Your task to perform on an android device: Add usb-c to usb-a to the cart on target.com Image 0: 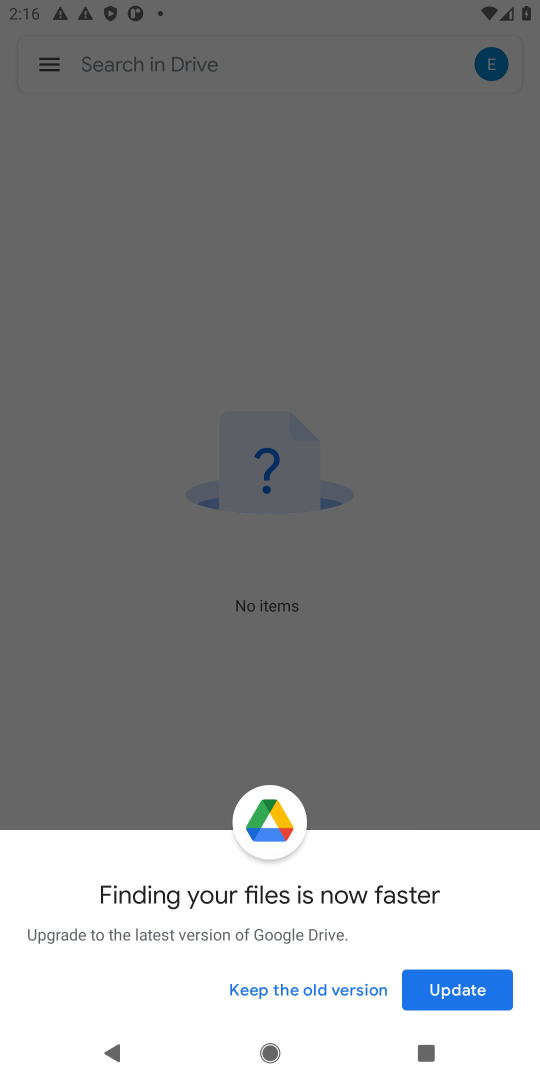
Step 0: press home button
Your task to perform on an android device: Add usb-c to usb-a to the cart on target.com Image 1: 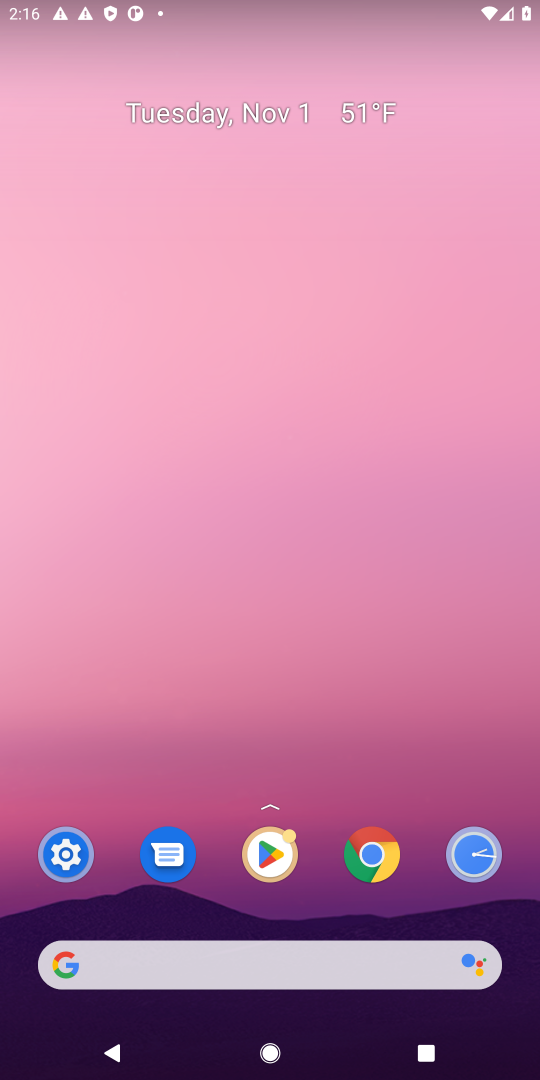
Step 1: click (269, 961)
Your task to perform on an android device: Add usb-c to usb-a to the cart on target.com Image 2: 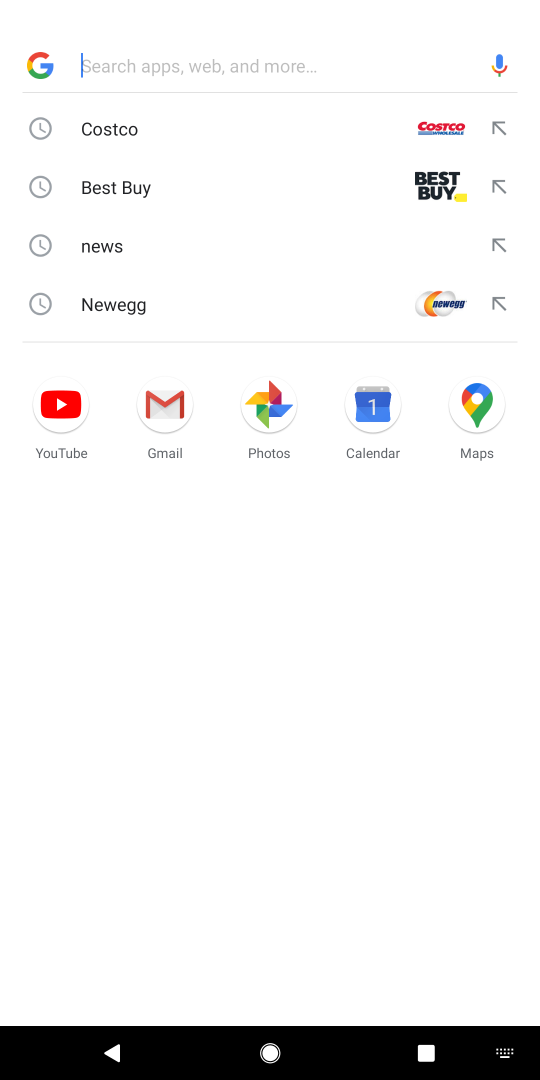
Step 2: type "target"
Your task to perform on an android device: Add usb-c to usb-a to the cart on target.com Image 3: 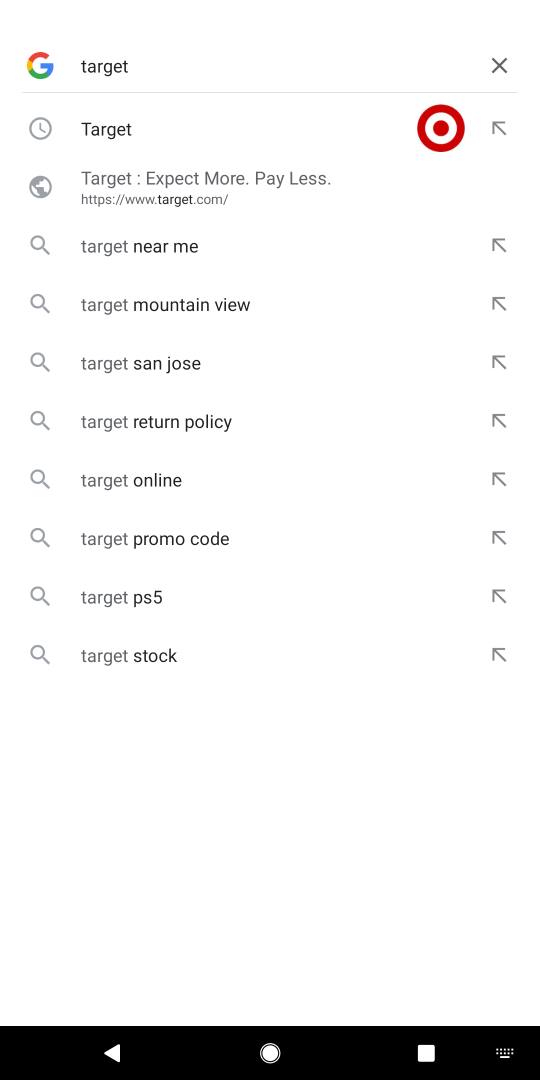
Step 3: click (103, 114)
Your task to perform on an android device: Add usb-c to usb-a to the cart on target.com Image 4: 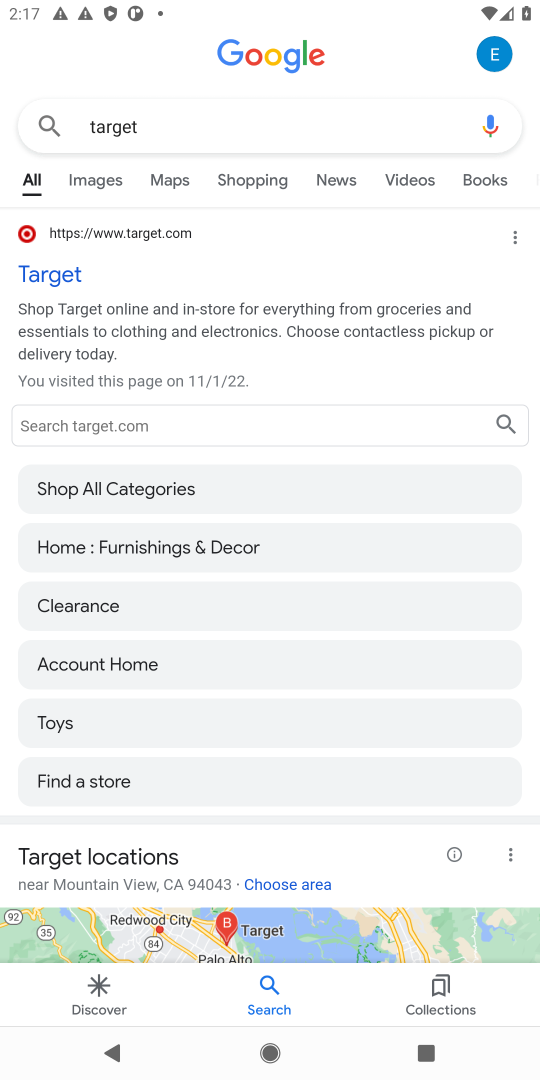
Step 4: click (60, 278)
Your task to perform on an android device: Add usb-c to usb-a to the cart on target.com Image 5: 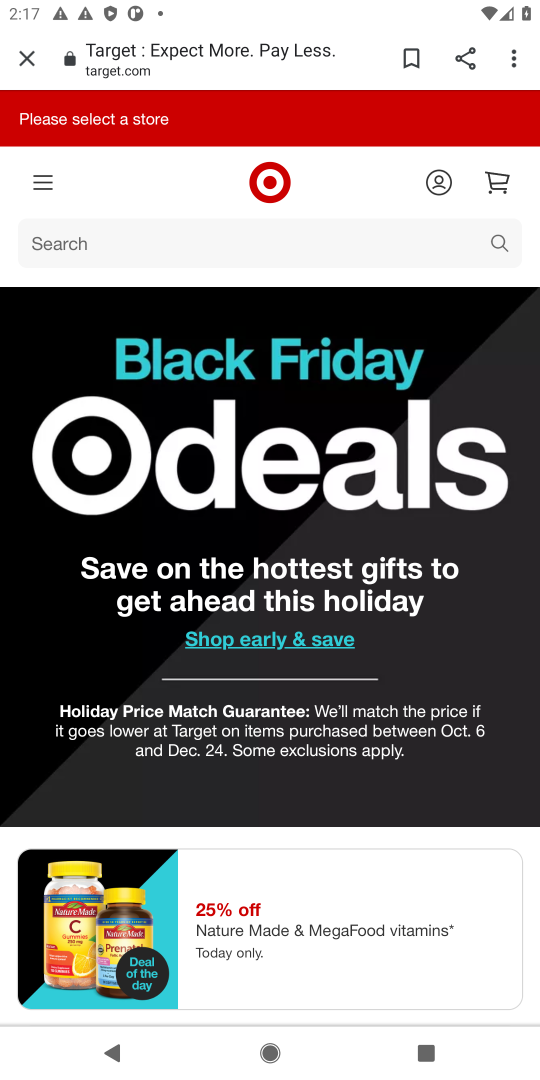
Step 5: click (136, 222)
Your task to perform on an android device: Add usb-c to usb-a to the cart on target.com Image 6: 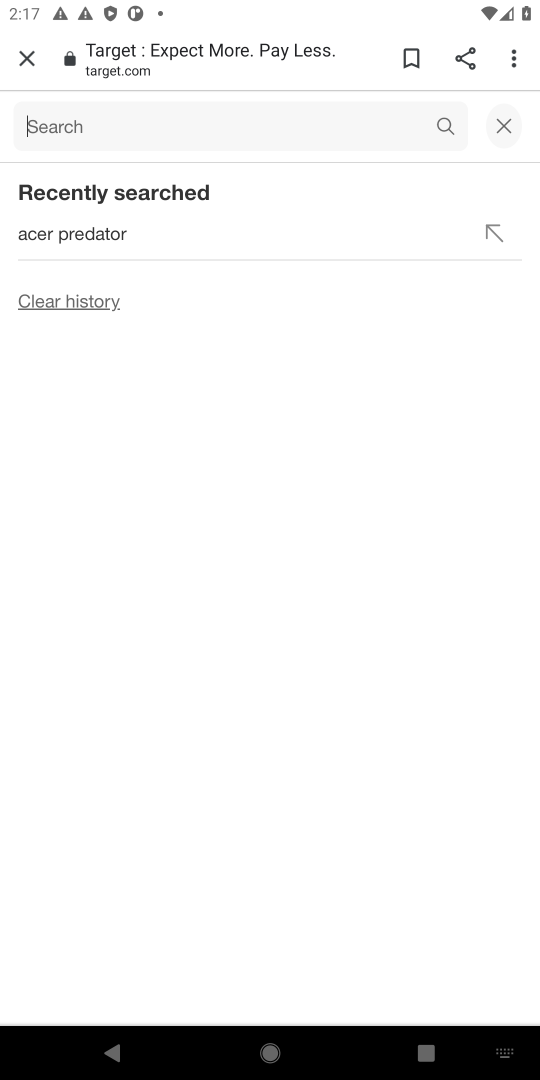
Step 6: type "usb-c to usb-a"
Your task to perform on an android device: Add usb-c to usb-a to the cart on target.com Image 7: 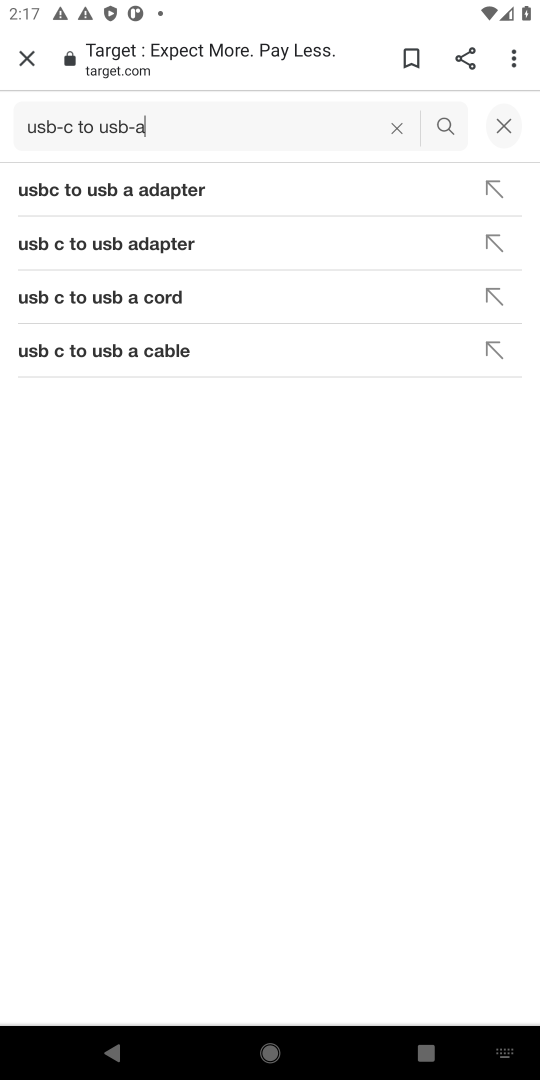
Step 7: click (441, 118)
Your task to perform on an android device: Add usb-c to usb-a to the cart on target.com Image 8: 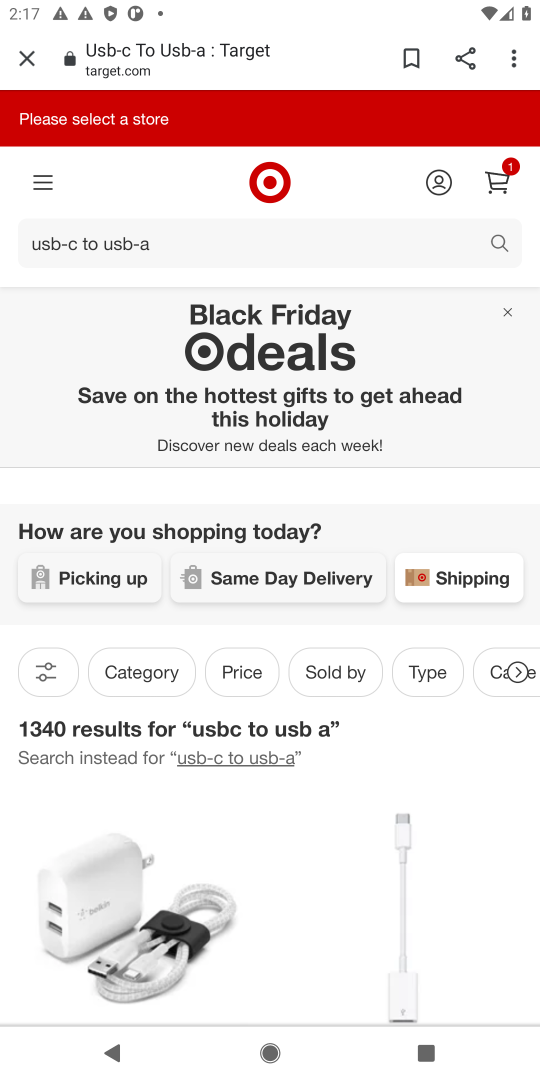
Step 8: drag from (375, 759) to (335, 461)
Your task to perform on an android device: Add usb-c to usb-a to the cart on target.com Image 9: 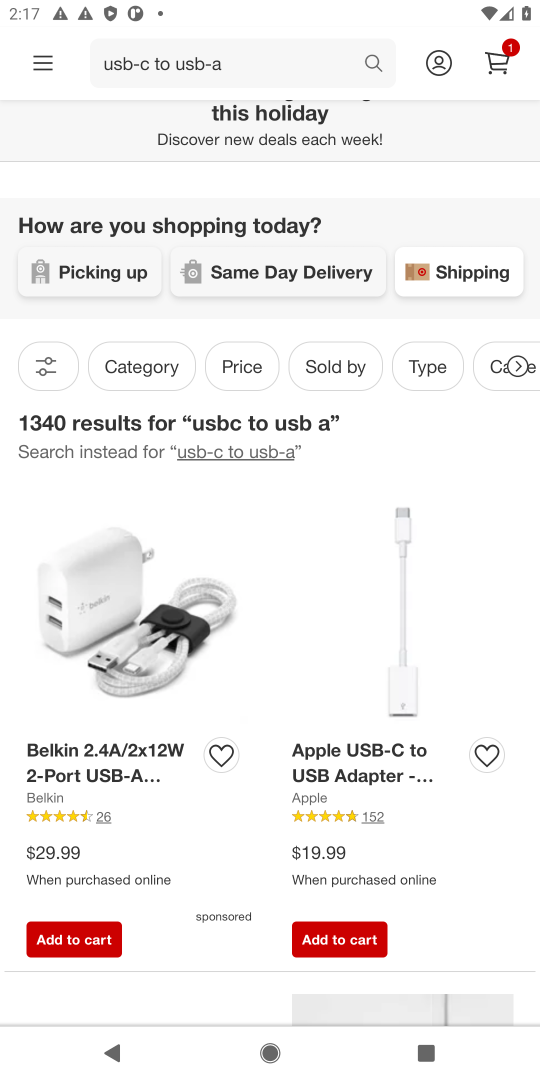
Step 9: click (80, 939)
Your task to perform on an android device: Add usb-c to usb-a to the cart on target.com Image 10: 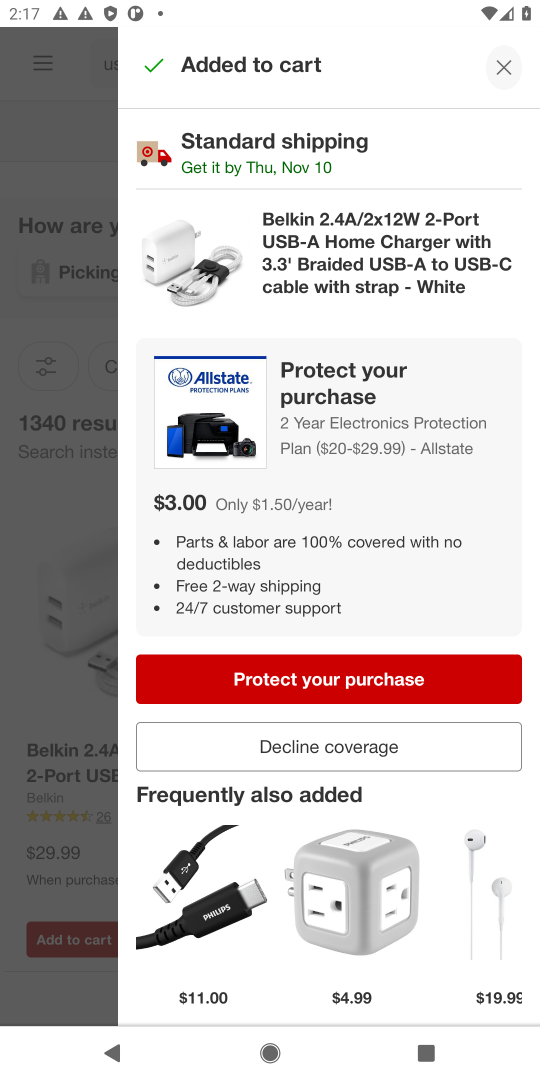
Step 10: task complete